Your task to perform on an android device: Open Google Maps and go to "Timeline" Image 0: 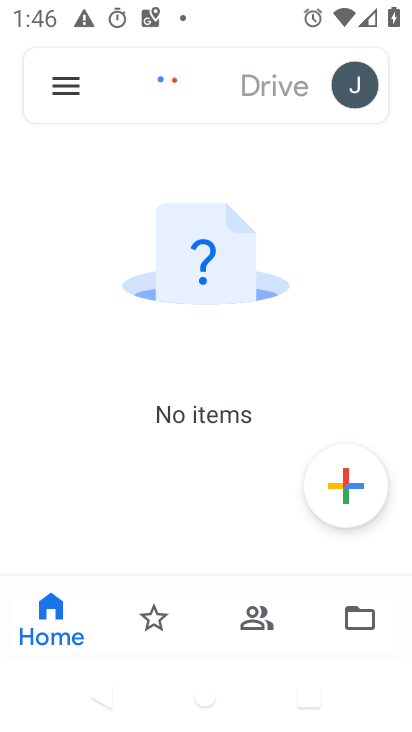
Step 0: press back button
Your task to perform on an android device: Open Google Maps and go to "Timeline" Image 1: 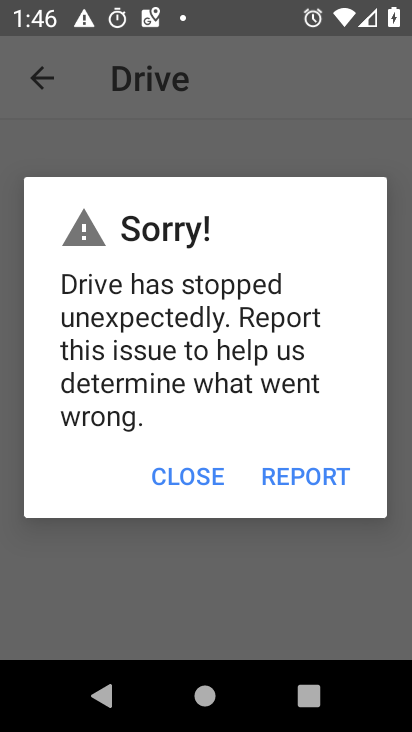
Step 1: click (148, 475)
Your task to perform on an android device: Open Google Maps and go to "Timeline" Image 2: 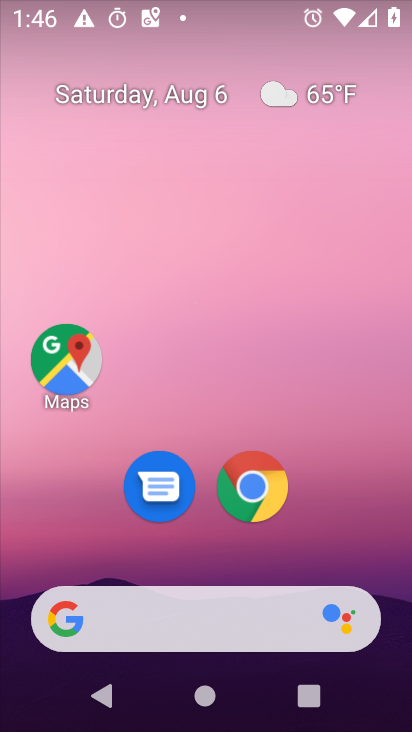
Step 2: click (58, 360)
Your task to perform on an android device: Open Google Maps and go to "Timeline" Image 3: 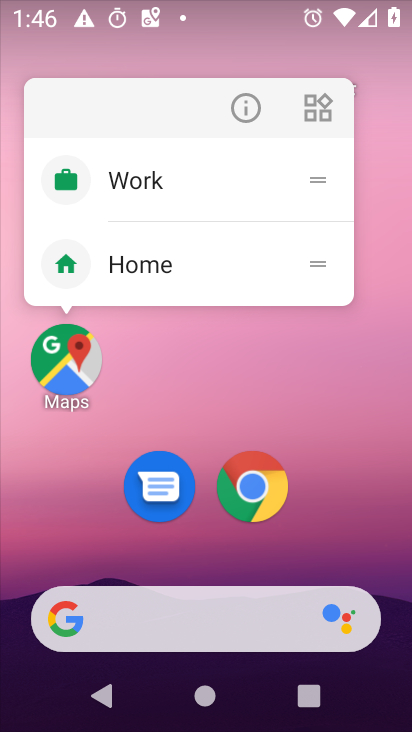
Step 3: click (61, 356)
Your task to perform on an android device: Open Google Maps and go to "Timeline" Image 4: 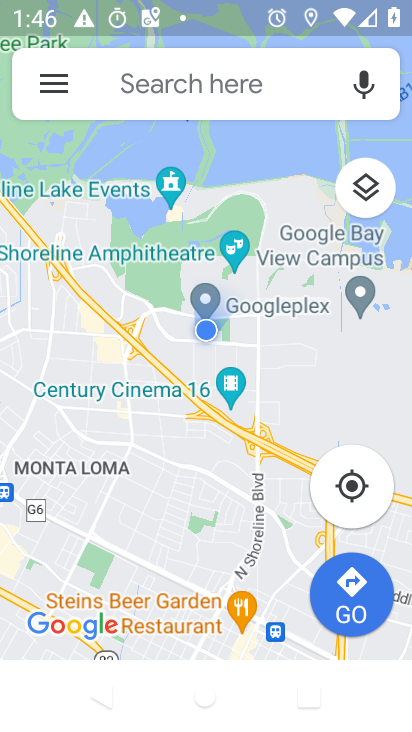
Step 4: click (51, 76)
Your task to perform on an android device: Open Google Maps and go to "Timeline" Image 5: 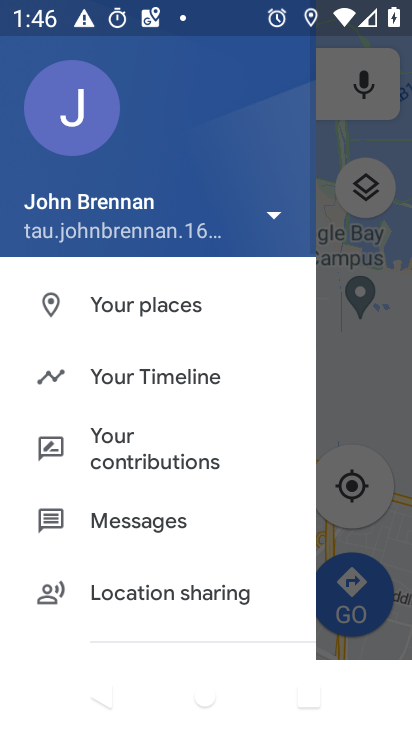
Step 5: click (195, 378)
Your task to perform on an android device: Open Google Maps and go to "Timeline" Image 6: 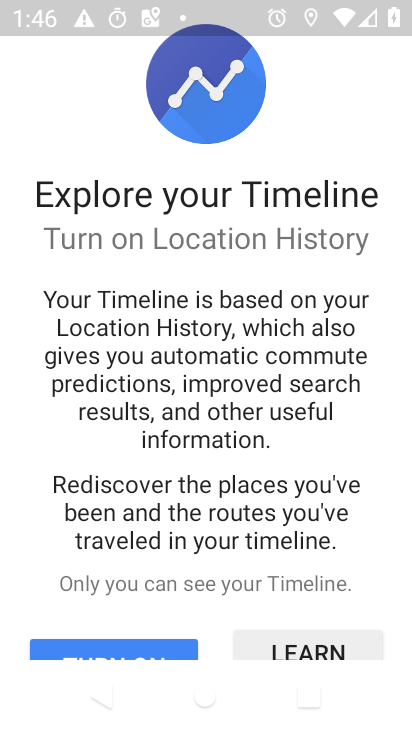
Step 6: task complete